Your task to perform on an android device: What's on my calendar today? Image 0: 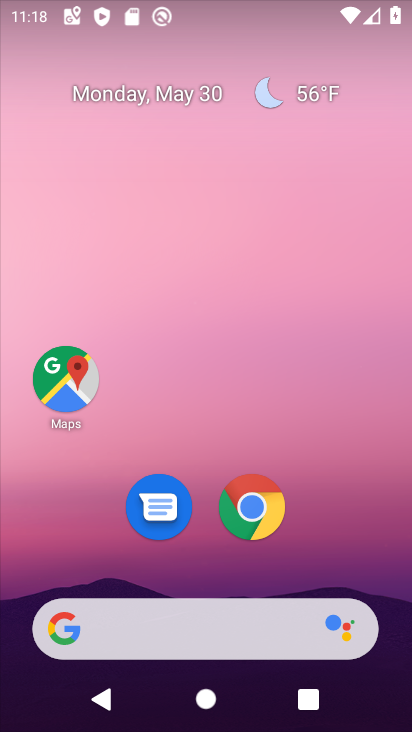
Step 0: drag from (149, 729) to (199, 89)
Your task to perform on an android device: What's on my calendar today? Image 1: 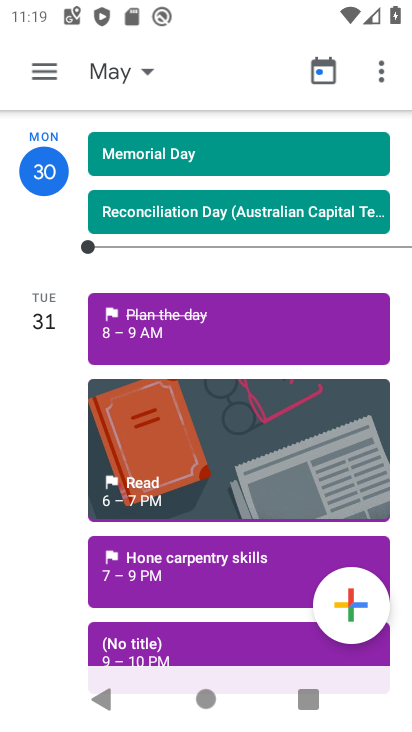
Step 1: click (170, 157)
Your task to perform on an android device: What's on my calendar today? Image 2: 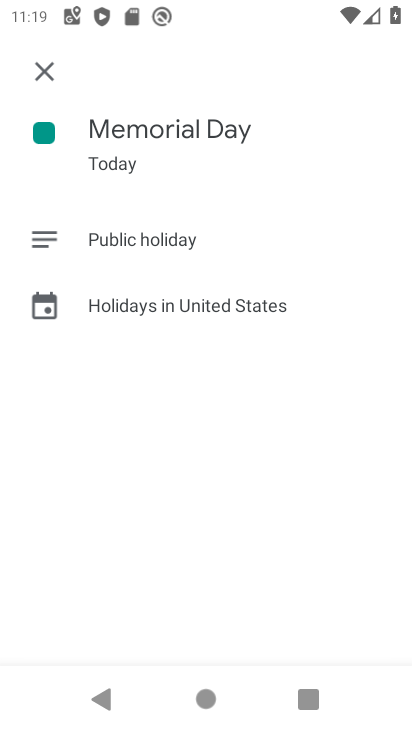
Step 2: task complete